Your task to perform on an android device: Open Yahoo.com Image 0: 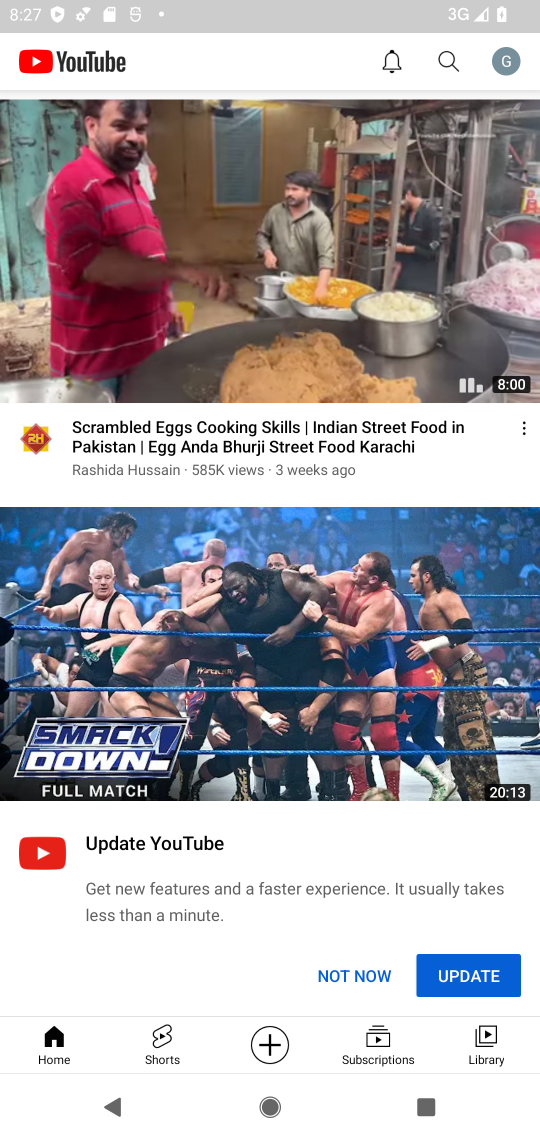
Step 0: press home button
Your task to perform on an android device: Open Yahoo.com Image 1: 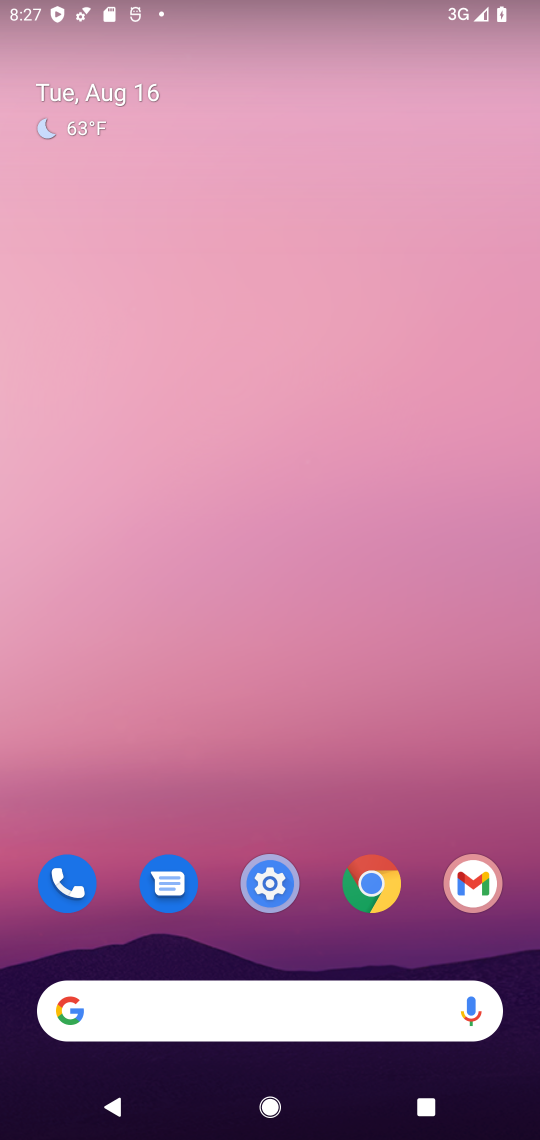
Step 1: click (372, 888)
Your task to perform on an android device: Open Yahoo.com Image 2: 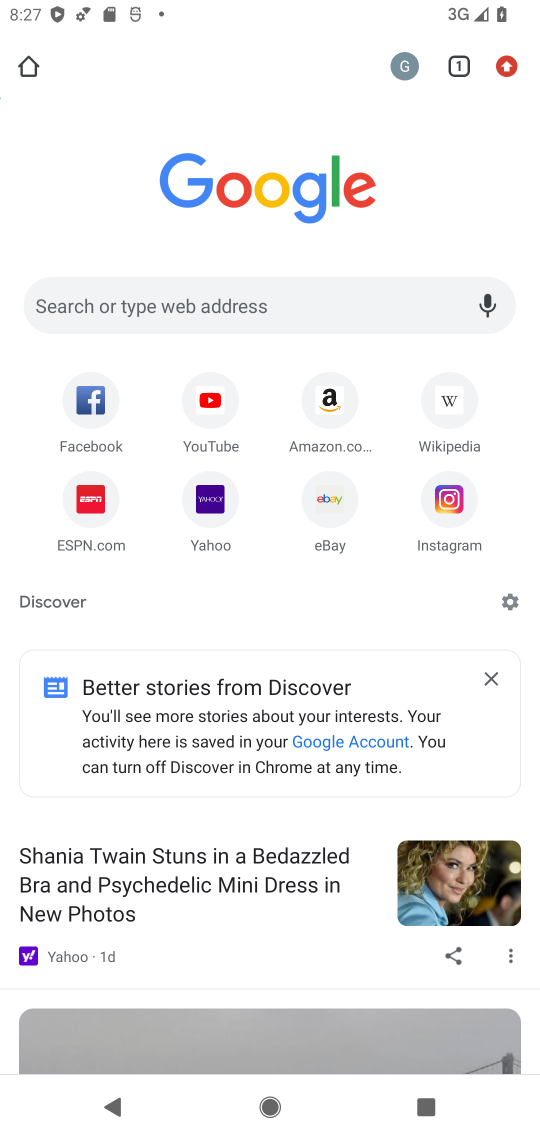
Step 2: click (216, 514)
Your task to perform on an android device: Open Yahoo.com Image 3: 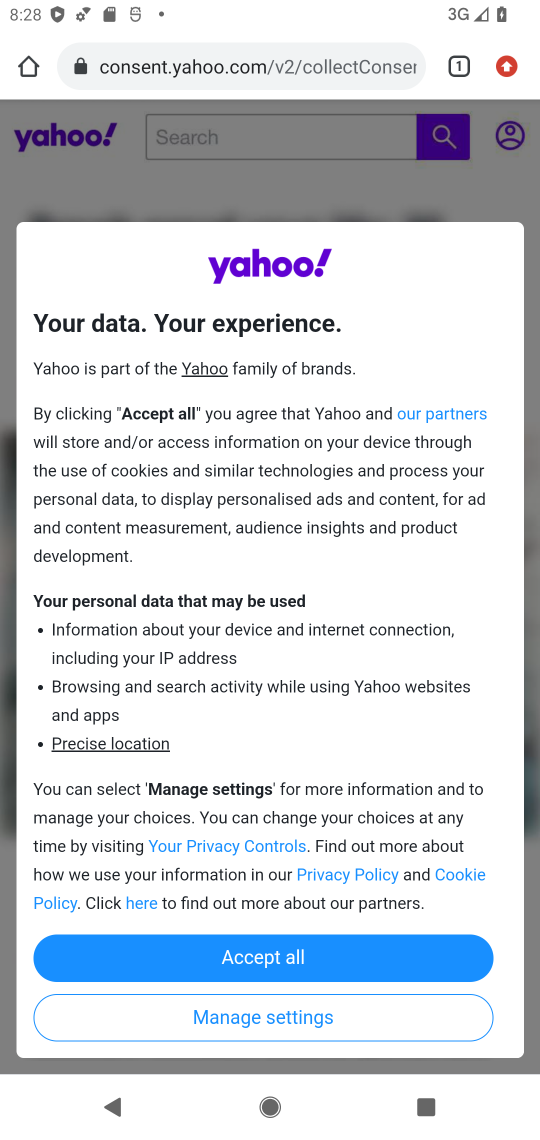
Step 3: click (380, 948)
Your task to perform on an android device: Open Yahoo.com Image 4: 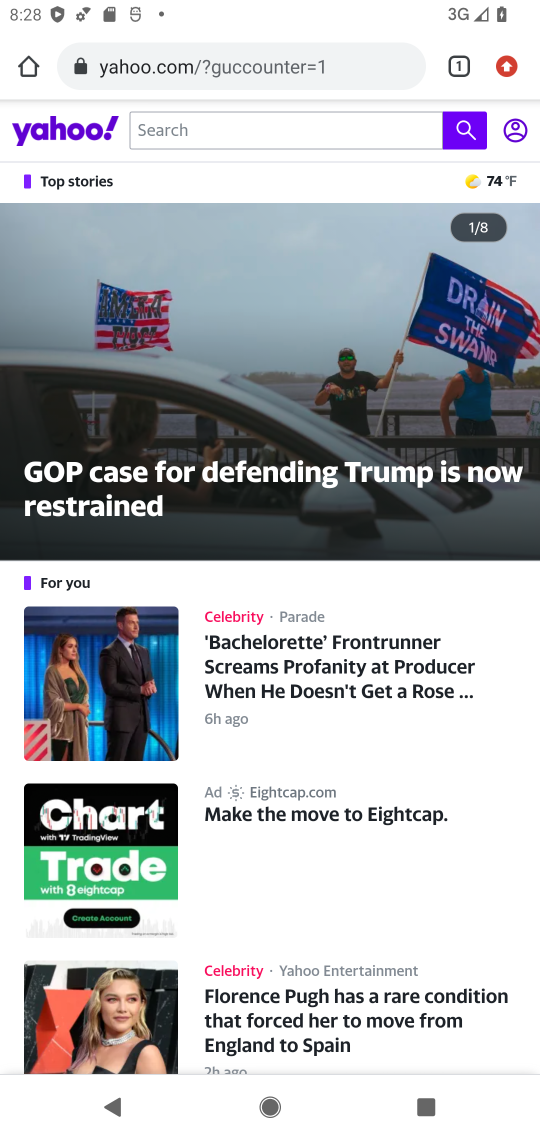
Step 4: task complete